Your task to perform on an android device: toggle show notifications on the lock screen Image 0: 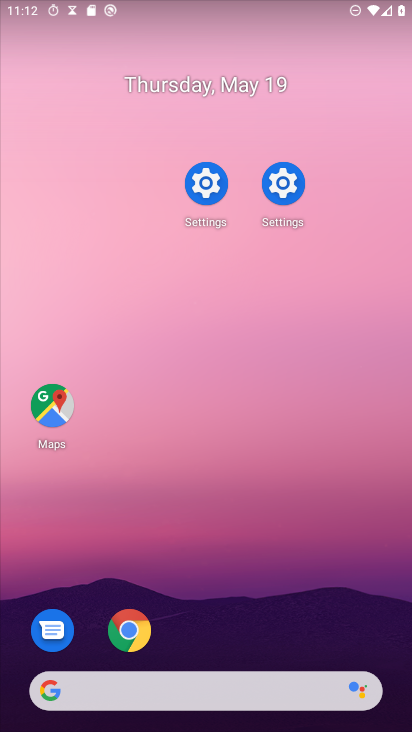
Step 0: drag from (301, 671) to (202, 16)
Your task to perform on an android device: toggle show notifications on the lock screen Image 1: 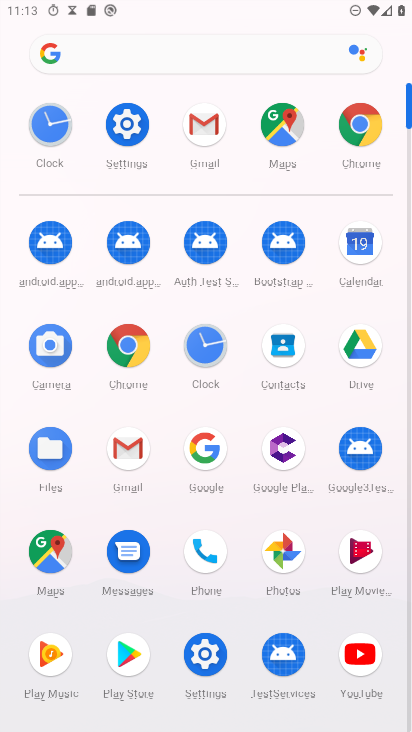
Step 1: click (128, 128)
Your task to perform on an android device: toggle show notifications on the lock screen Image 2: 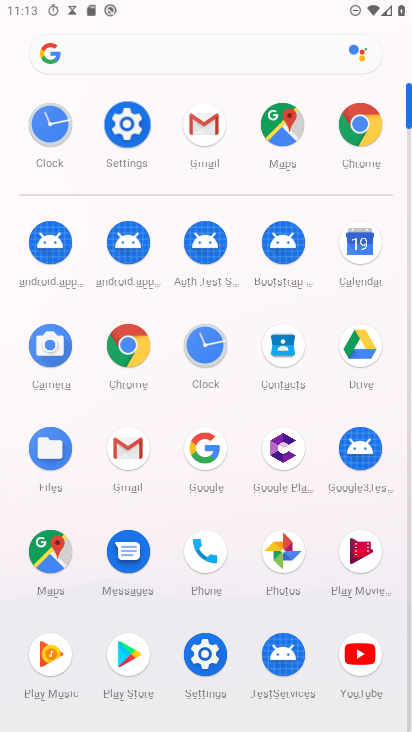
Step 2: click (128, 128)
Your task to perform on an android device: toggle show notifications on the lock screen Image 3: 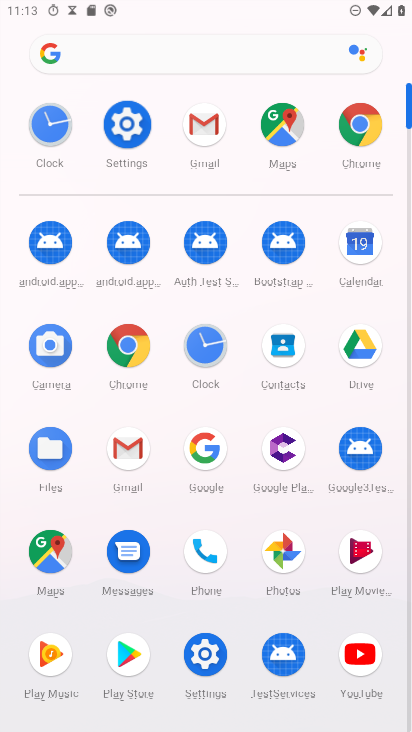
Step 3: click (128, 128)
Your task to perform on an android device: toggle show notifications on the lock screen Image 4: 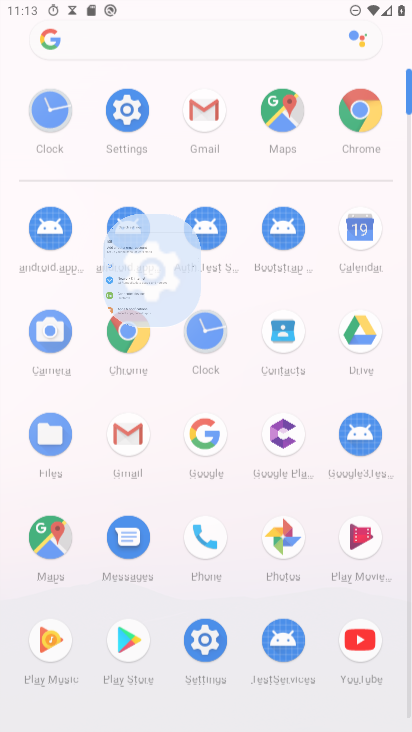
Step 4: click (128, 128)
Your task to perform on an android device: toggle show notifications on the lock screen Image 5: 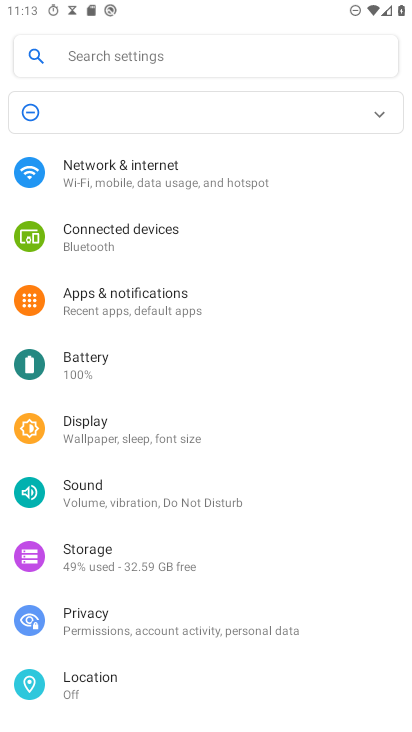
Step 5: click (128, 128)
Your task to perform on an android device: toggle show notifications on the lock screen Image 6: 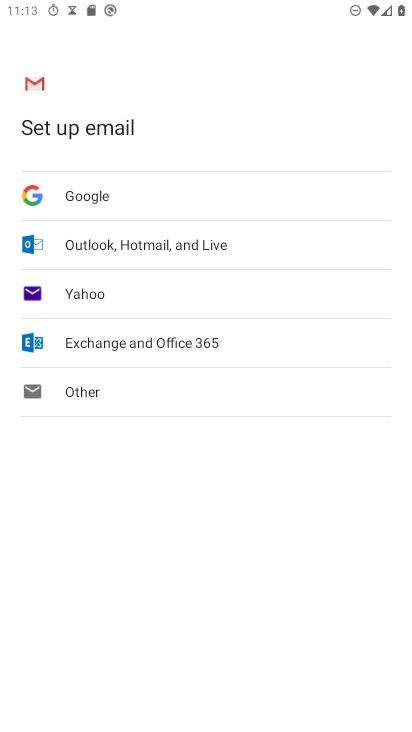
Step 6: press back button
Your task to perform on an android device: toggle show notifications on the lock screen Image 7: 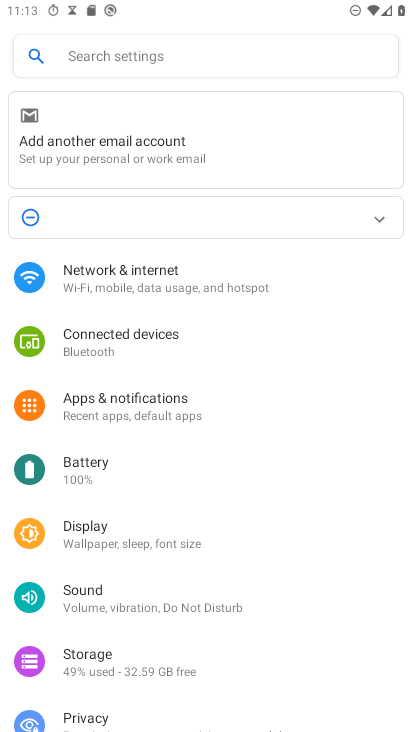
Step 7: click (127, 411)
Your task to perform on an android device: toggle show notifications on the lock screen Image 8: 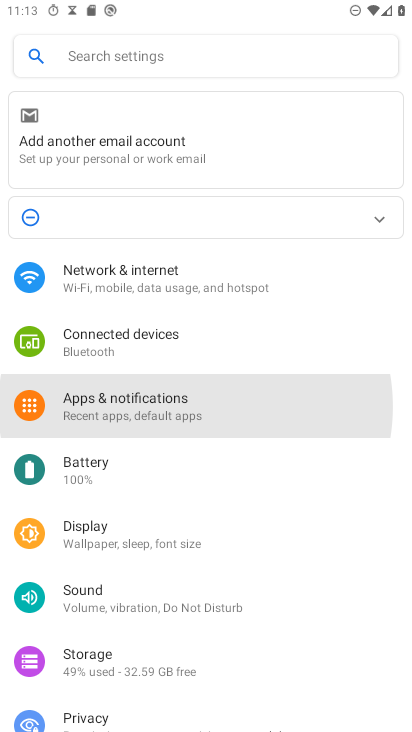
Step 8: click (128, 411)
Your task to perform on an android device: toggle show notifications on the lock screen Image 9: 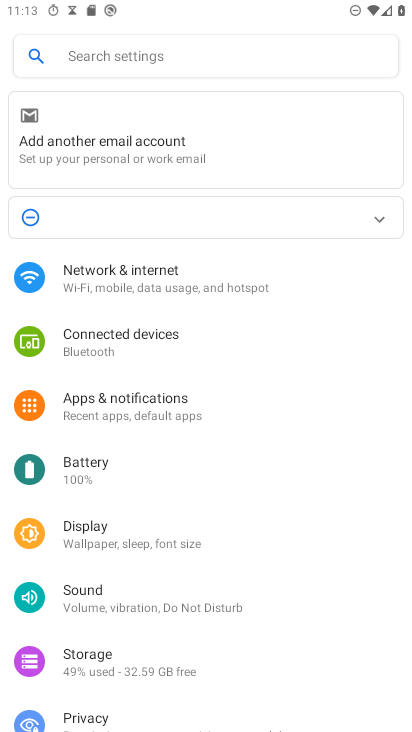
Step 9: click (128, 411)
Your task to perform on an android device: toggle show notifications on the lock screen Image 10: 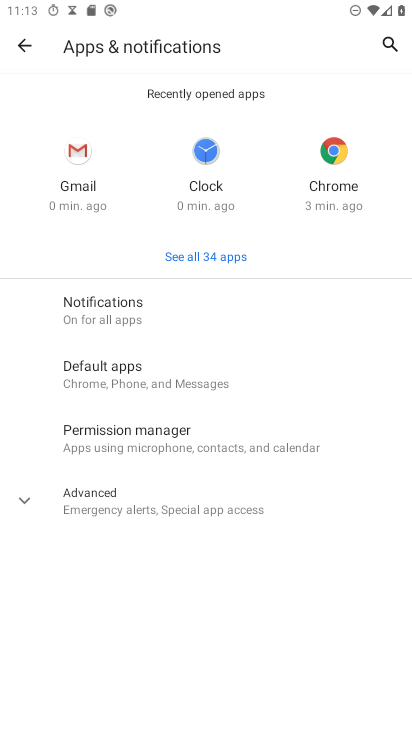
Step 10: click (114, 311)
Your task to perform on an android device: toggle show notifications on the lock screen Image 11: 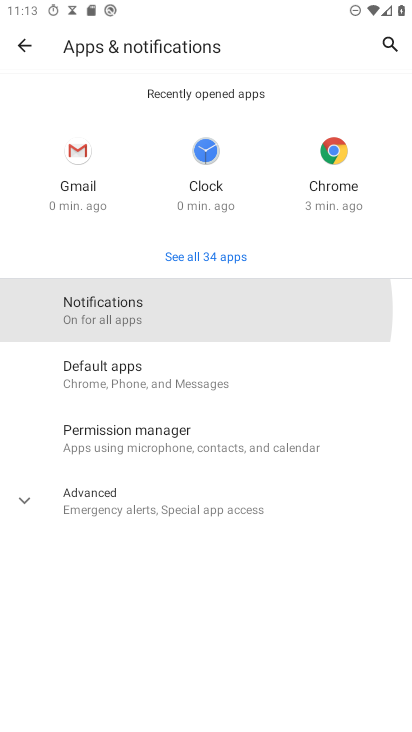
Step 11: click (114, 311)
Your task to perform on an android device: toggle show notifications on the lock screen Image 12: 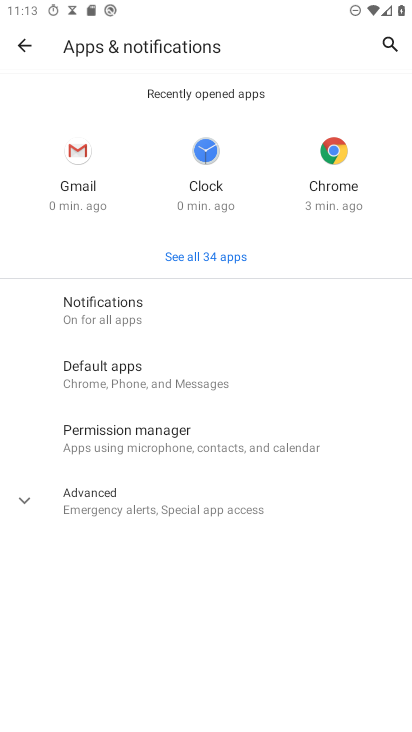
Step 12: click (114, 311)
Your task to perform on an android device: toggle show notifications on the lock screen Image 13: 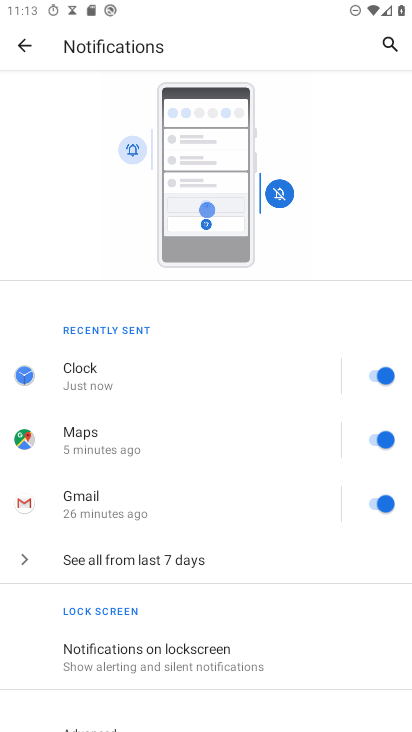
Step 13: drag from (183, 538) to (216, 231)
Your task to perform on an android device: toggle show notifications on the lock screen Image 14: 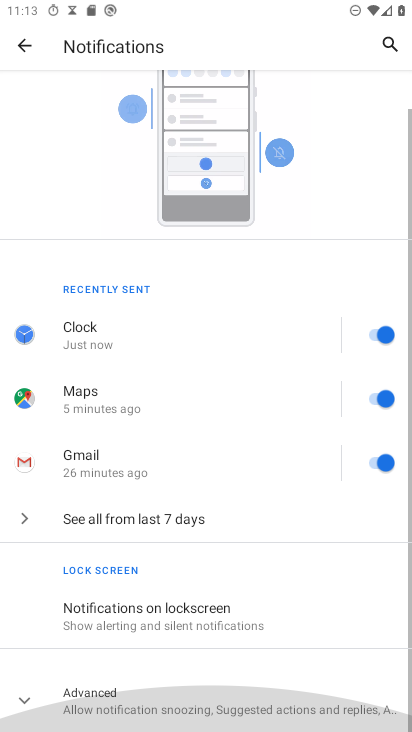
Step 14: drag from (202, 498) to (188, 182)
Your task to perform on an android device: toggle show notifications on the lock screen Image 15: 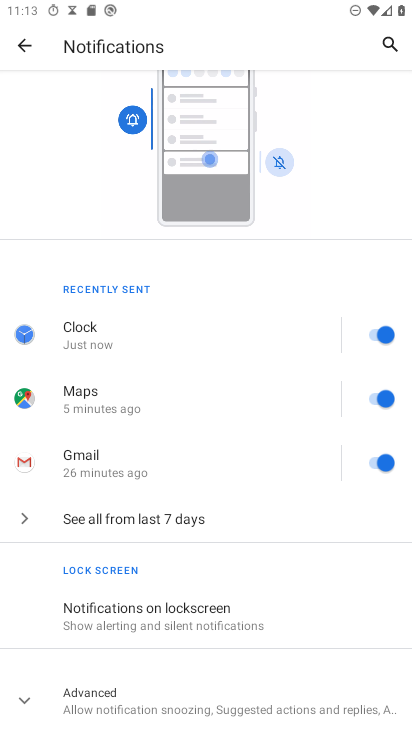
Step 15: click (132, 608)
Your task to perform on an android device: toggle show notifications on the lock screen Image 16: 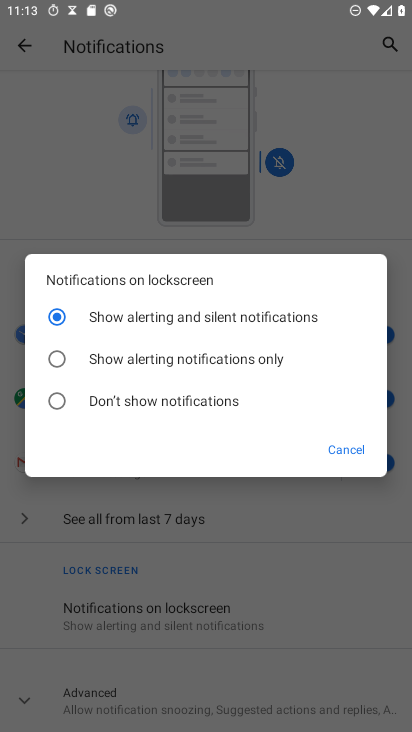
Step 16: click (342, 446)
Your task to perform on an android device: toggle show notifications on the lock screen Image 17: 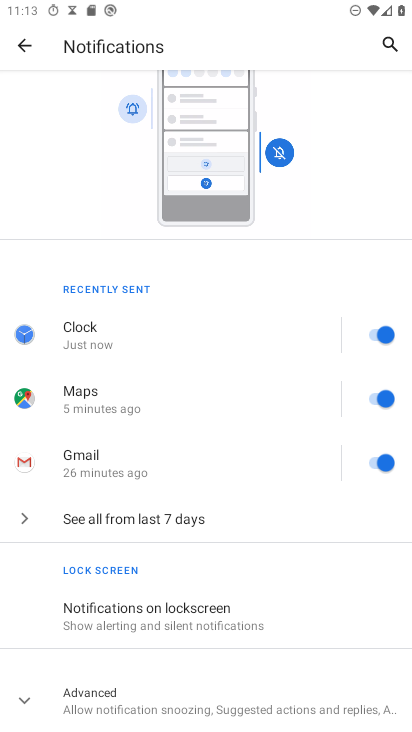
Step 17: click (145, 603)
Your task to perform on an android device: toggle show notifications on the lock screen Image 18: 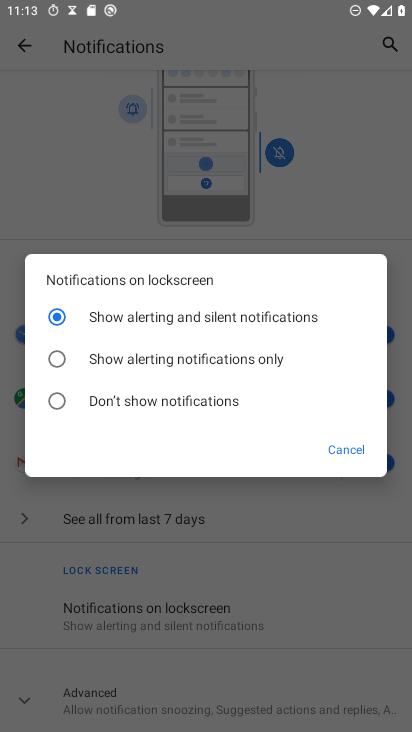
Step 18: click (139, 598)
Your task to perform on an android device: toggle show notifications on the lock screen Image 19: 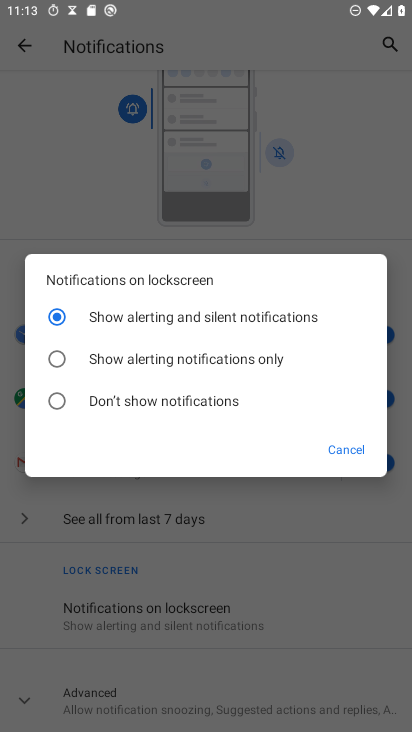
Step 19: click (138, 598)
Your task to perform on an android device: toggle show notifications on the lock screen Image 20: 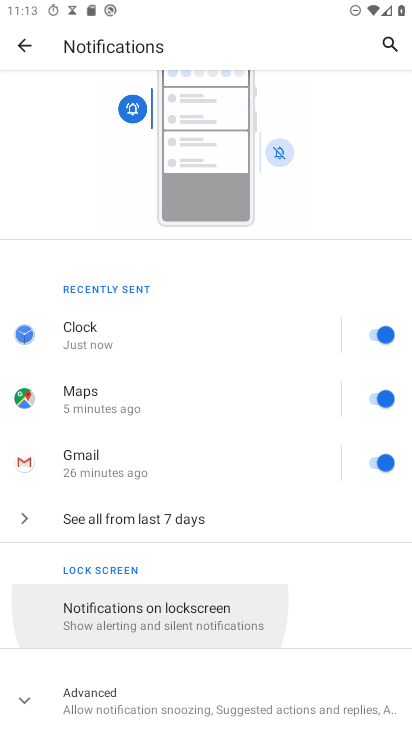
Step 20: click (129, 597)
Your task to perform on an android device: toggle show notifications on the lock screen Image 21: 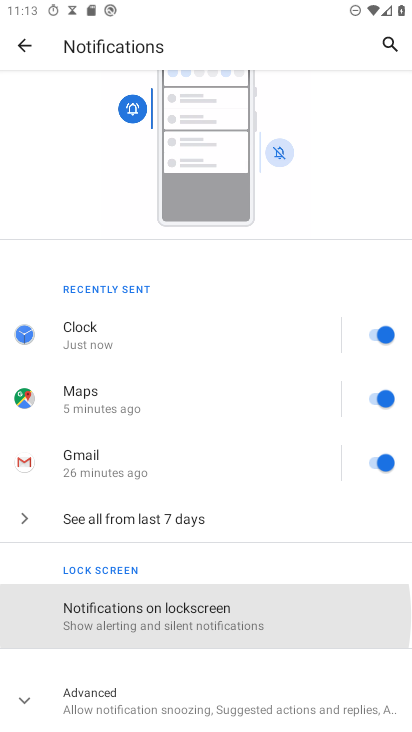
Step 21: click (125, 597)
Your task to perform on an android device: toggle show notifications on the lock screen Image 22: 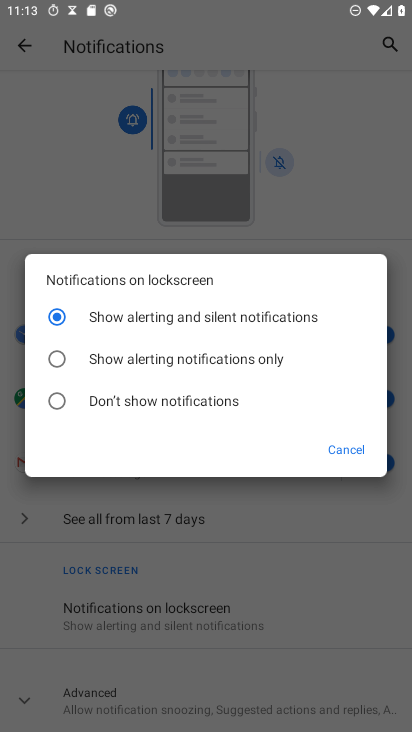
Step 22: click (116, 594)
Your task to perform on an android device: toggle show notifications on the lock screen Image 23: 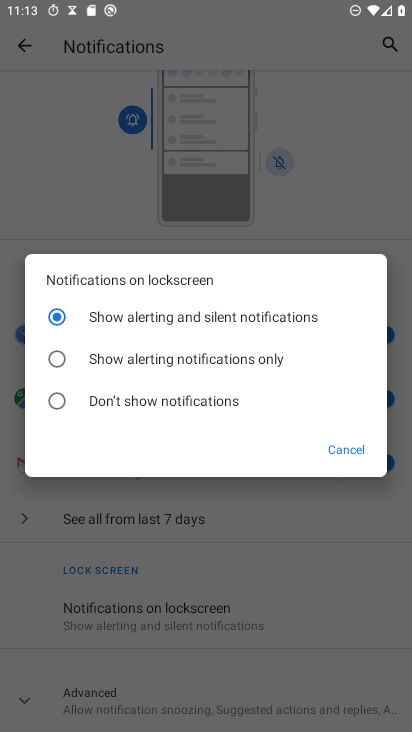
Step 23: click (115, 589)
Your task to perform on an android device: toggle show notifications on the lock screen Image 24: 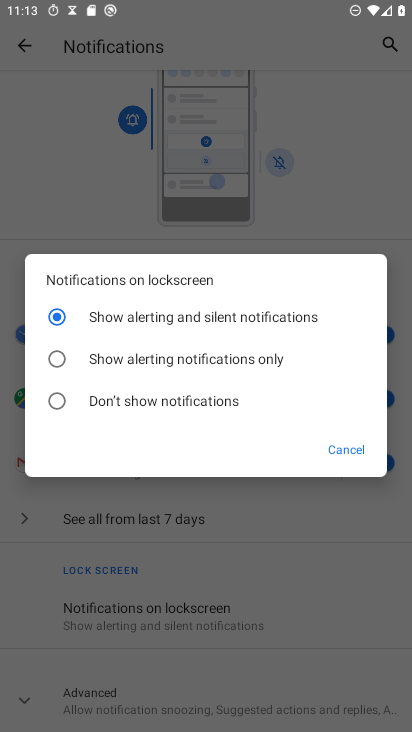
Step 24: click (328, 438)
Your task to perform on an android device: toggle show notifications on the lock screen Image 25: 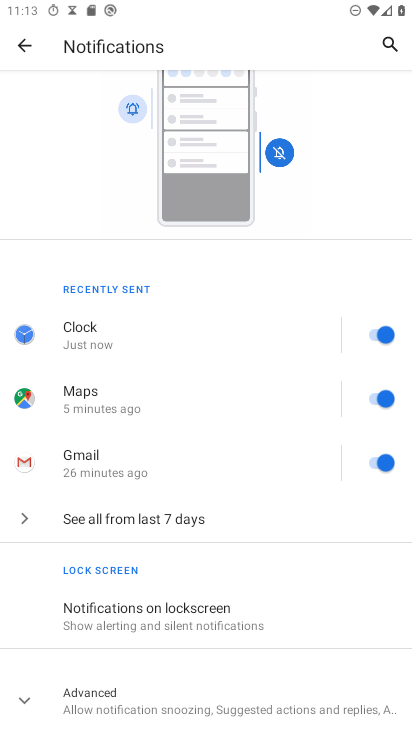
Step 25: drag from (187, 598) to (167, 267)
Your task to perform on an android device: toggle show notifications on the lock screen Image 26: 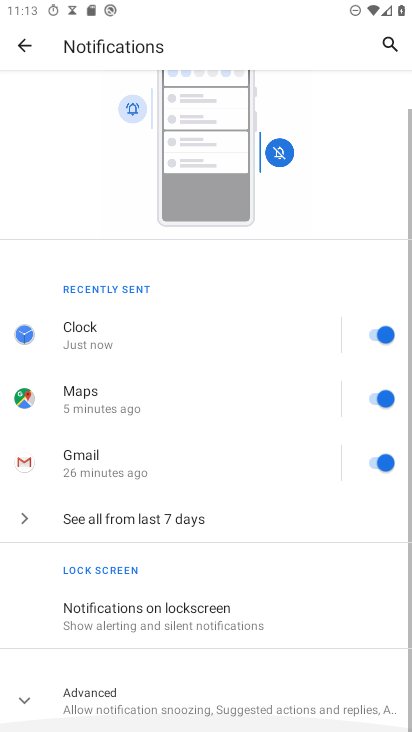
Step 26: drag from (228, 511) to (269, 127)
Your task to perform on an android device: toggle show notifications on the lock screen Image 27: 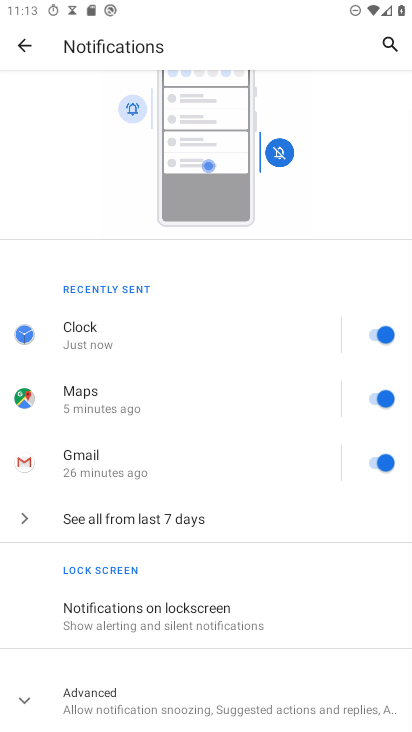
Step 27: click (124, 603)
Your task to perform on an android device: toggle show notifications on the lock screen Image 28: 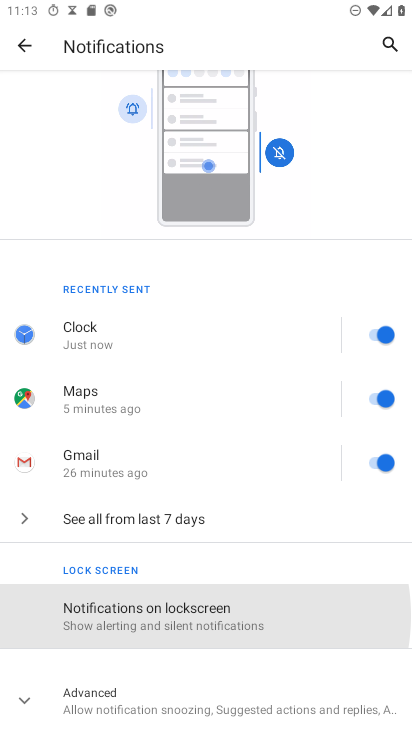
Step 28: click (125, 600)
Your task to perform on an android device: toggle show notifications on the lock screen Image 29: 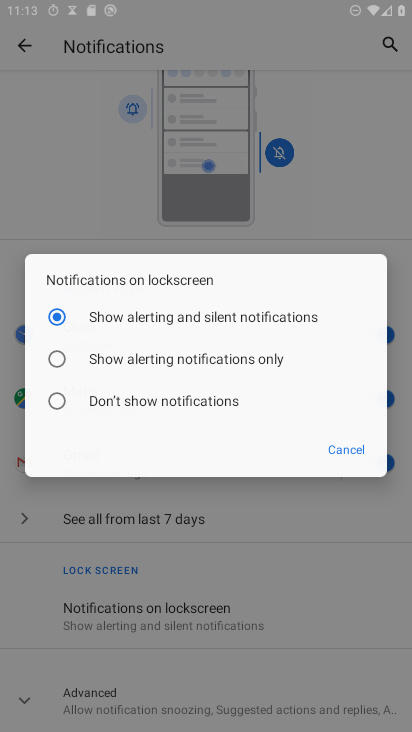
Step 29: click (125, 600)
Your task to perform on an android device: toggle show notifications on the lock screen Image 30: 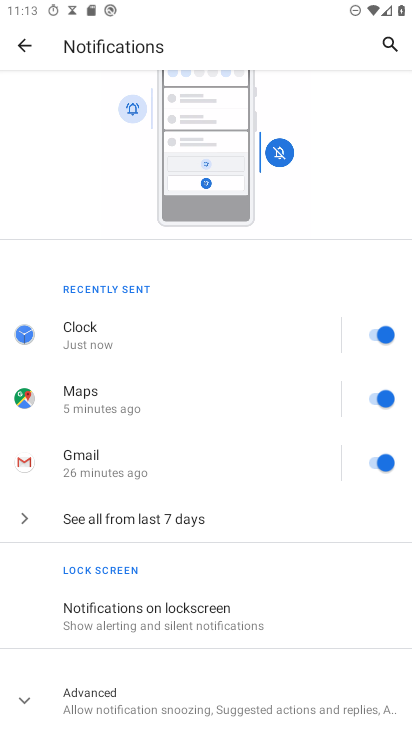
Step 30: click (126, 601)
Your task to perform on an android device: toggle show notifications on the lock screen Image 31: 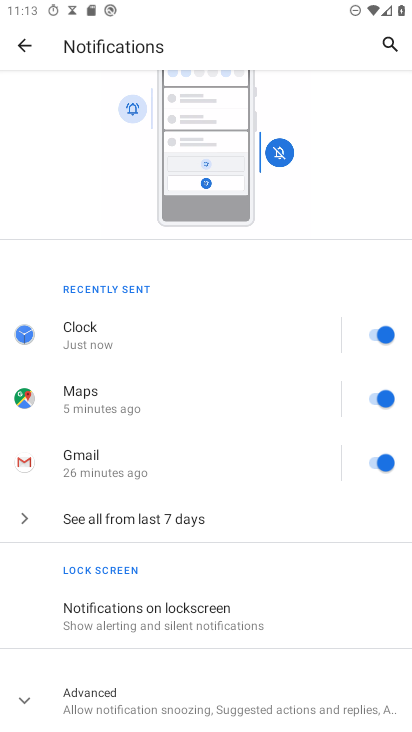
Step 31: click (127, 599)
Your task to perform on an android device: toggle show notifications on the lock screen Image 32: 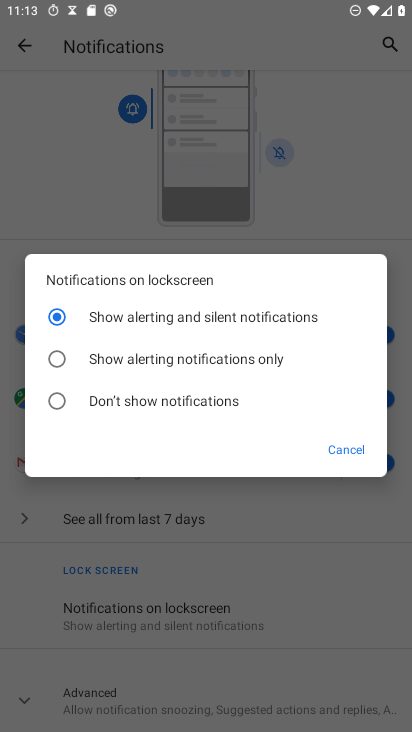
Step 32: click (339, 442)
Your task to perform on an android device: toggle show notifications on the lock screen Image 33: 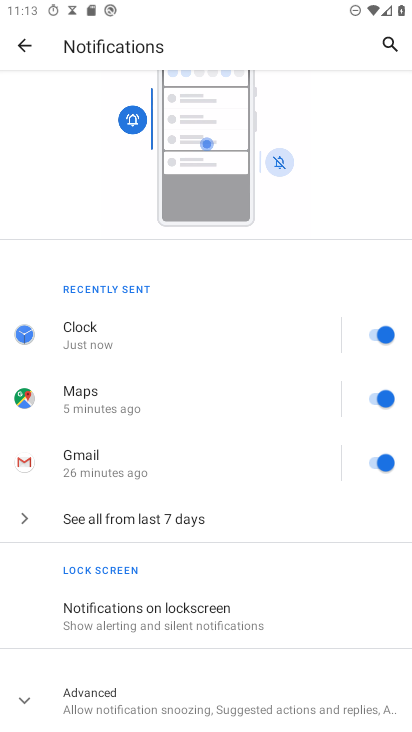
Step 33: task complete